Your task to perform on an android device: turn on wifi Image 0: 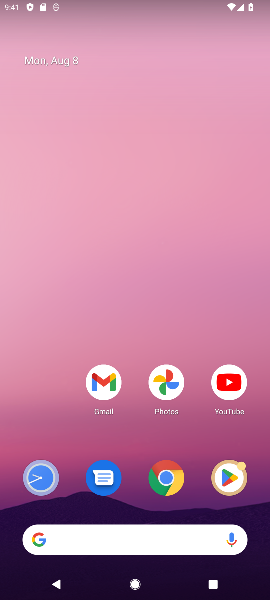
Step 0: drag from (198, 438) to (245, 27)
Your task to perform on an android device: turn on wifi Image 1: 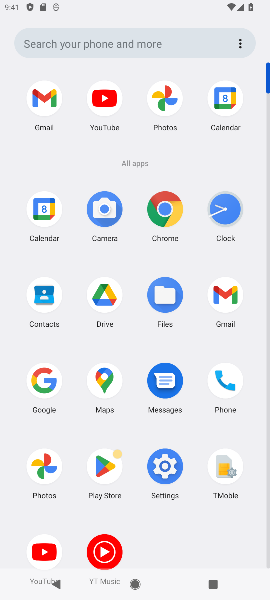
Step 1: click (159, 460)
Your task to perform on an android device: turn on wifi Image 2: 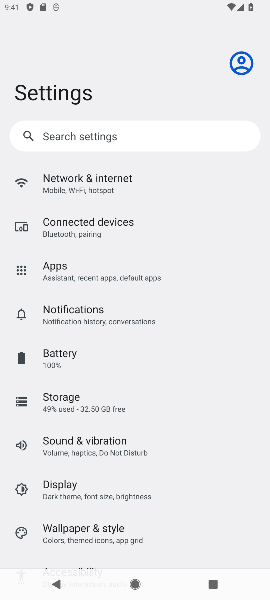
Step 2: click (109, 188)
Your task to perform on an android device: turn on wifi Image 3: 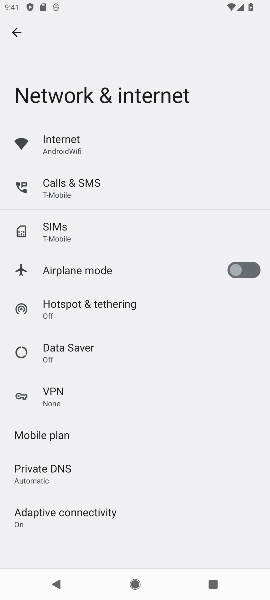
Step 3: click (80, 147)
Your task to perform on an android device: turn on wifi Image 4: 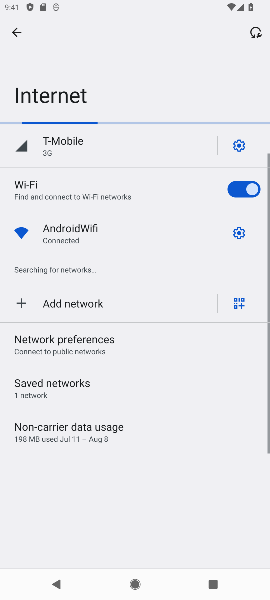
Step 4: task complete